Your task to perform on an android device: Open sound settings Image 0: 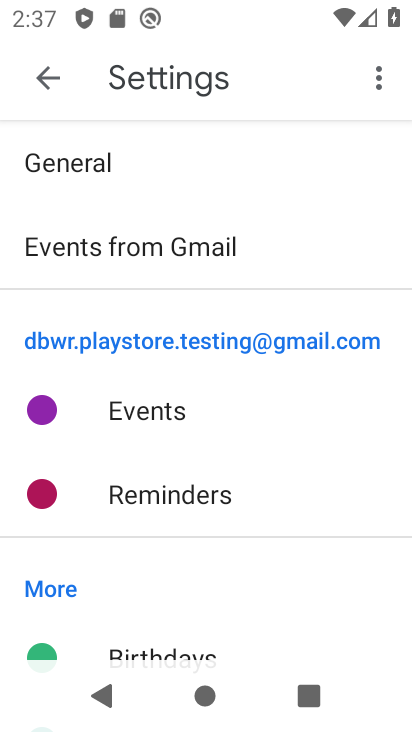
Step 0: press back button
Your task to perform on an android device: Open sound settings Image 1: 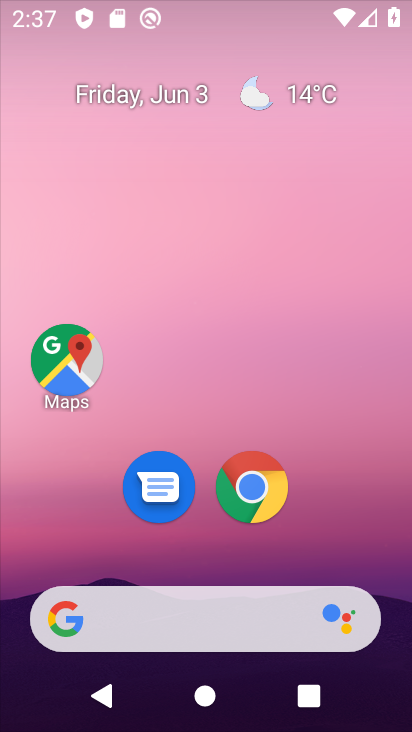
Step 1: drag from (134, 570) to (231, 21)
Your task to perform on an android device: Open sound settings Image 2: 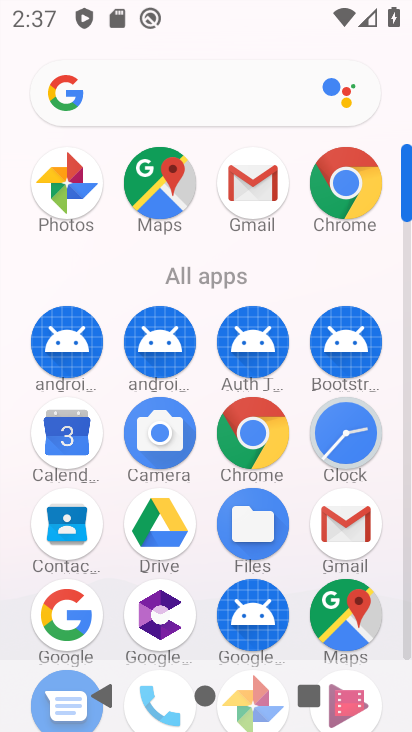
Step 2: drag from (186, 561) to (227, 121)
Your task to perform on an android device: Open sound settings Image 3: 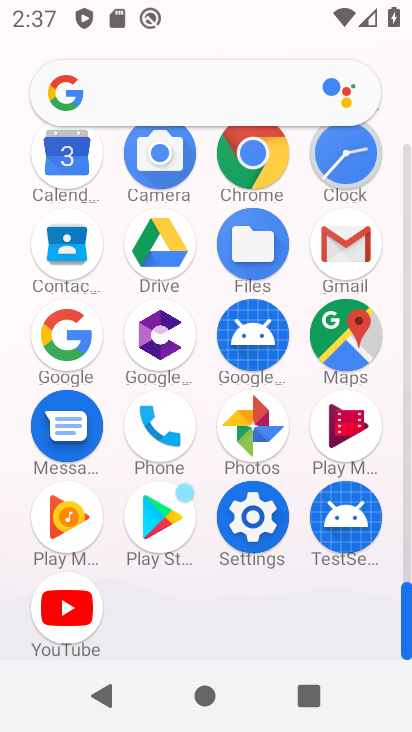
Step 3: click (248, 519)
Your task to perform on an android device: Open sound settings Image 4: 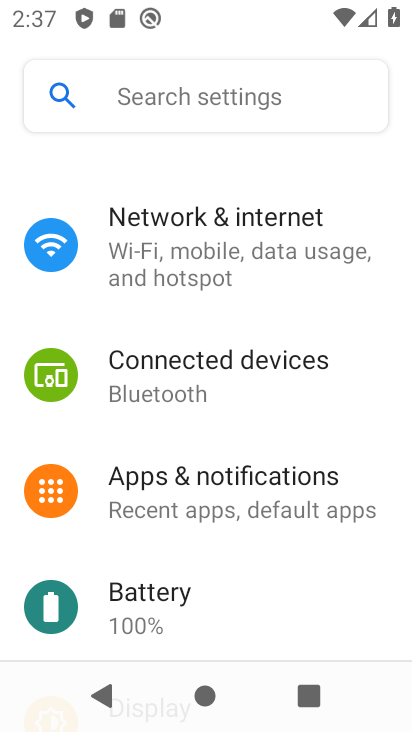
Step 4: drag from (196, 617) to (259, 104)
Your task to perform on an android device: Open sound settings Image 5: 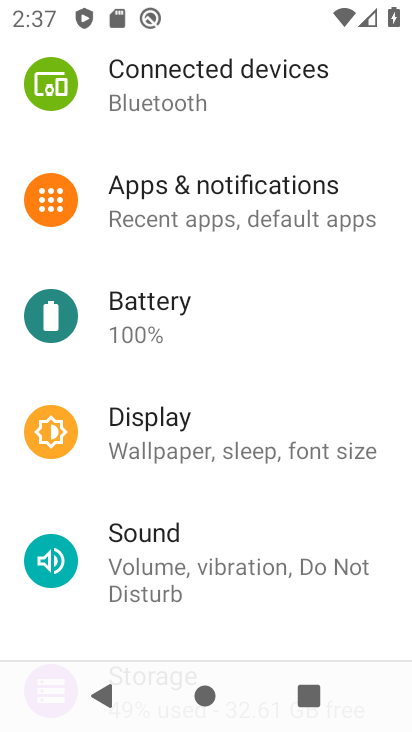
Step 5: click (183, 574)
Your task to perform on an android device: Open sound settings Image 6: 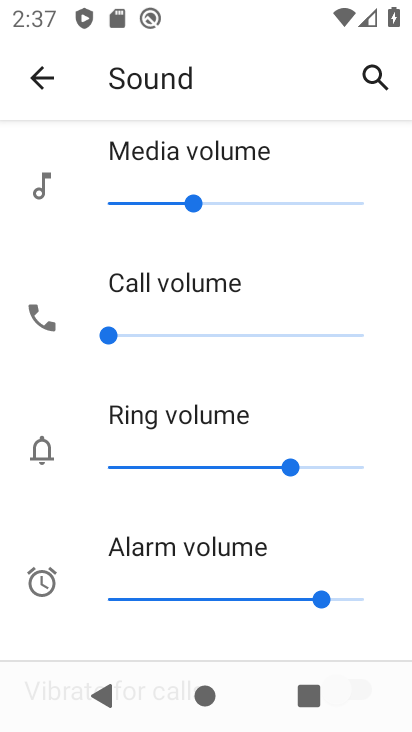
Step 6: task complete